Your task to perform on an android device: delete a single message in the gmail app Image 0: 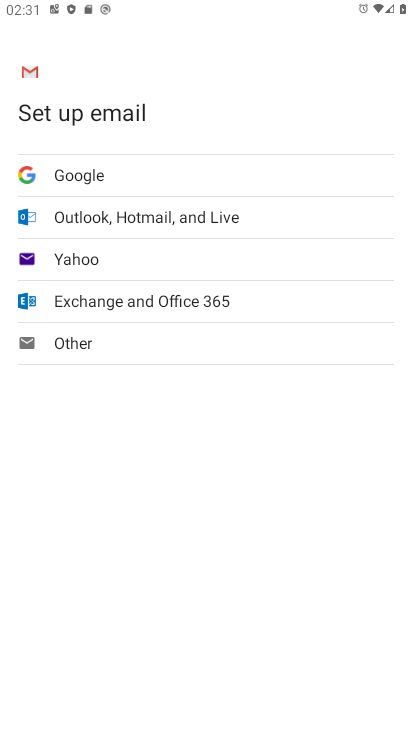
Step 0: press home button
Your task to perform on an android device: delete a single message in the gmail app Image 1: 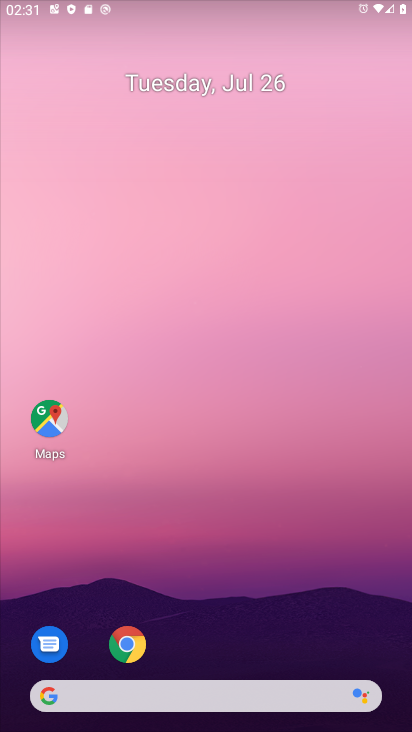
Step 1: drag from (175, 626) to (175, 256)
Your task to perform on an android device: delete a single message in the gmail app Image 2: 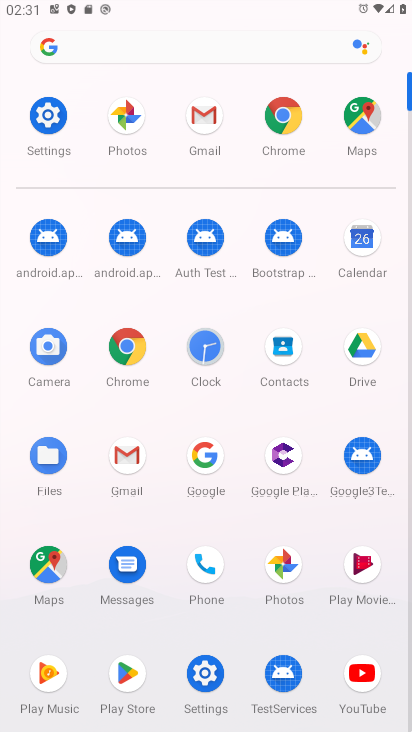
Step 2: click (125, 452)
Your task to perform on an android device: delete a single message in the gmail app Image 3: 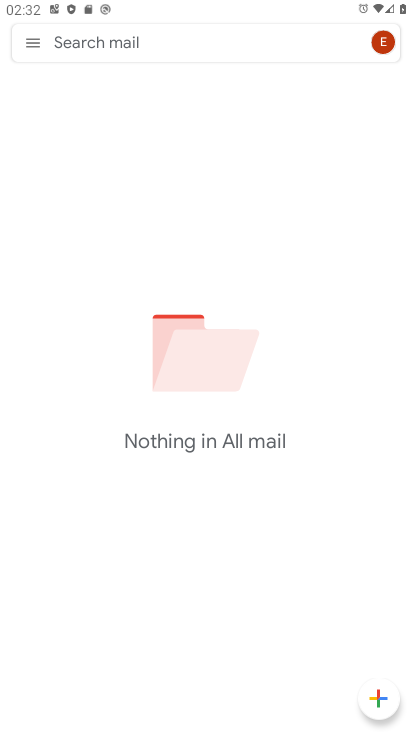
Step 3: task complete